Your task to perform on an android device: delete a single message in the gmail app Image 0: 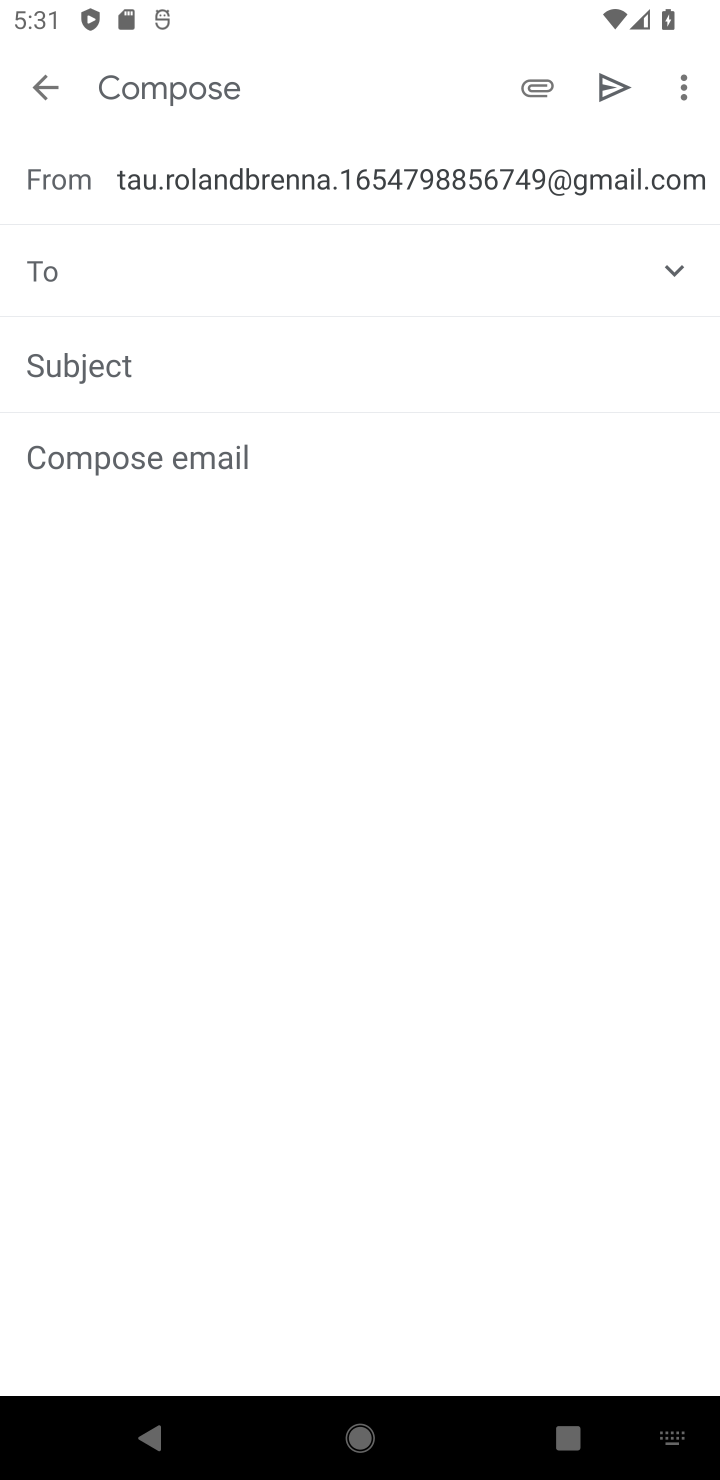
Step 0: click (52, 82)
Your task to perform on an android device: delete a single message in the gmail app Image 1: 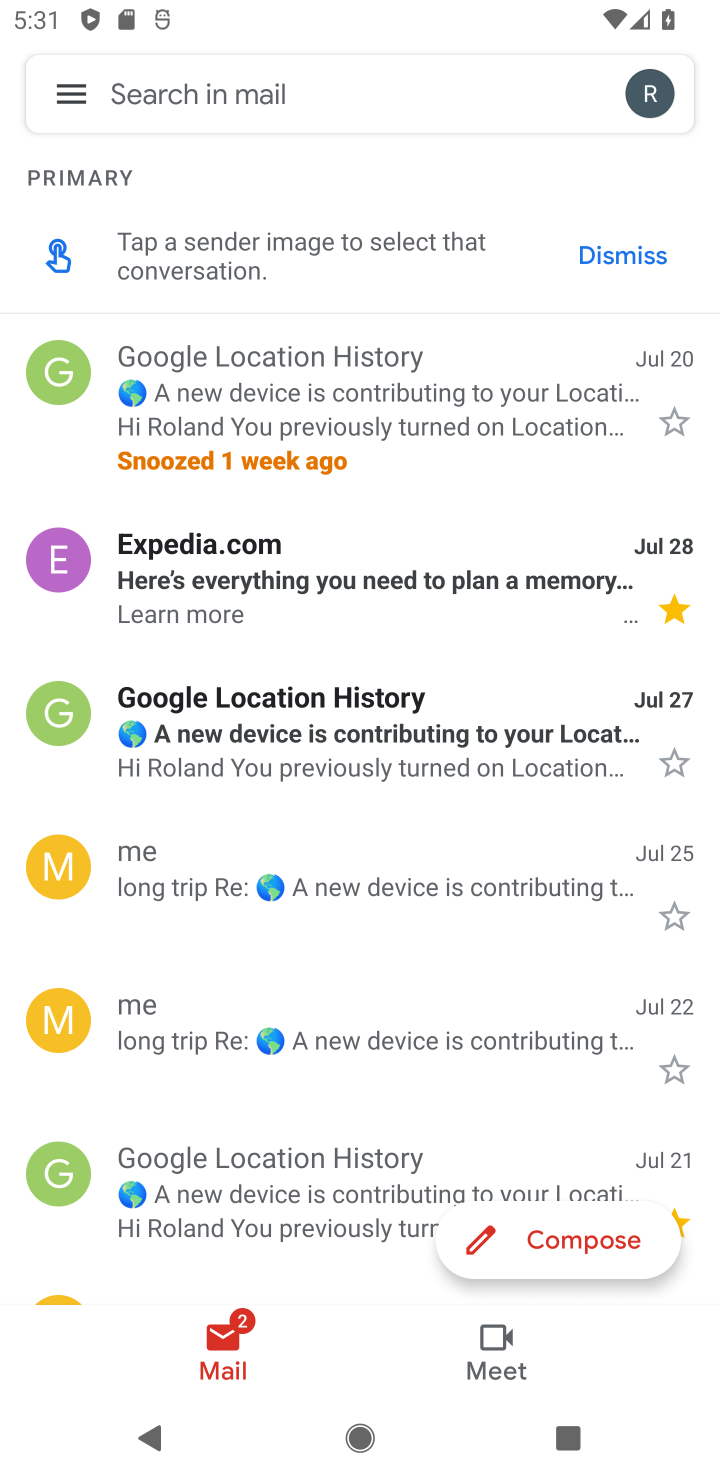
Step 1: click (281, 692)
Your task to perform on an android device: delete a single message in the gmail app Image 2: 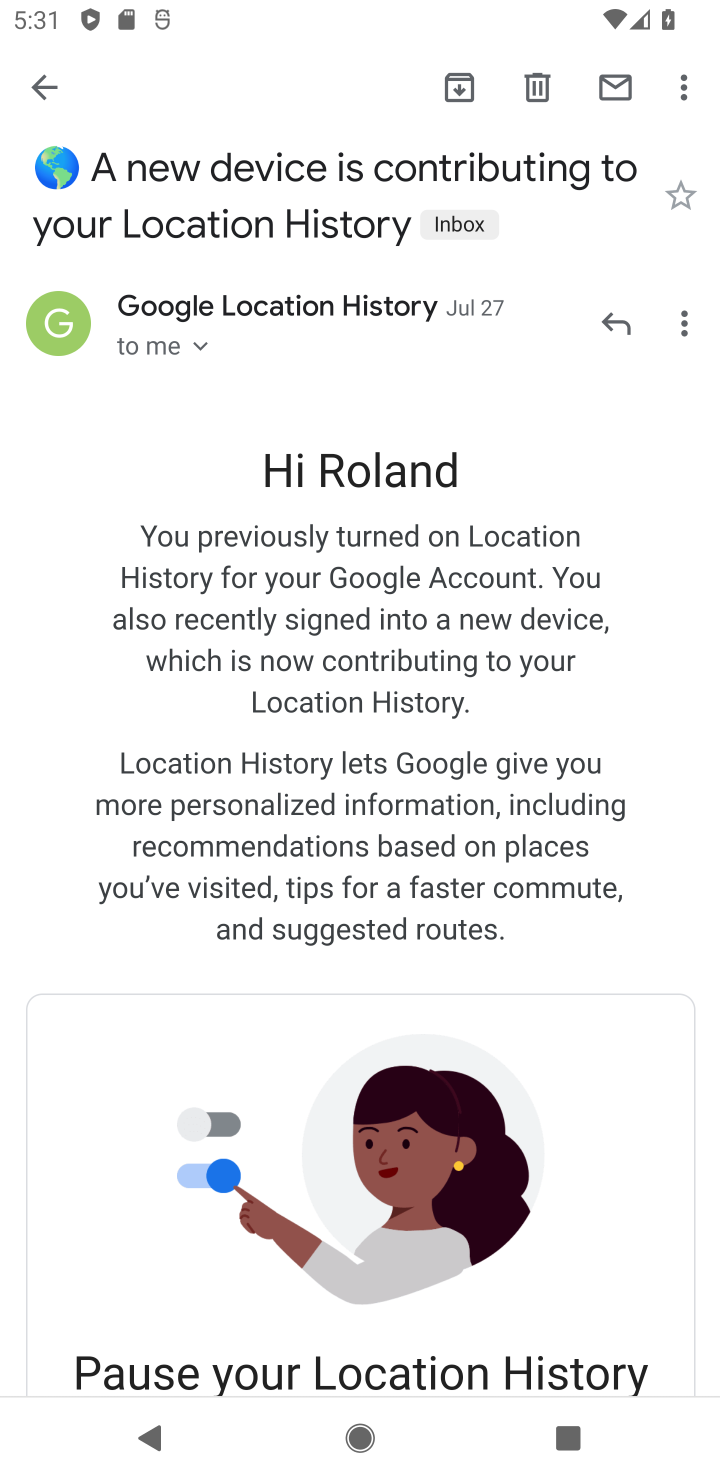
Step 2: click (526, 85)
Your task to perform on an android device: delete a single message in the gmail app Image 3: 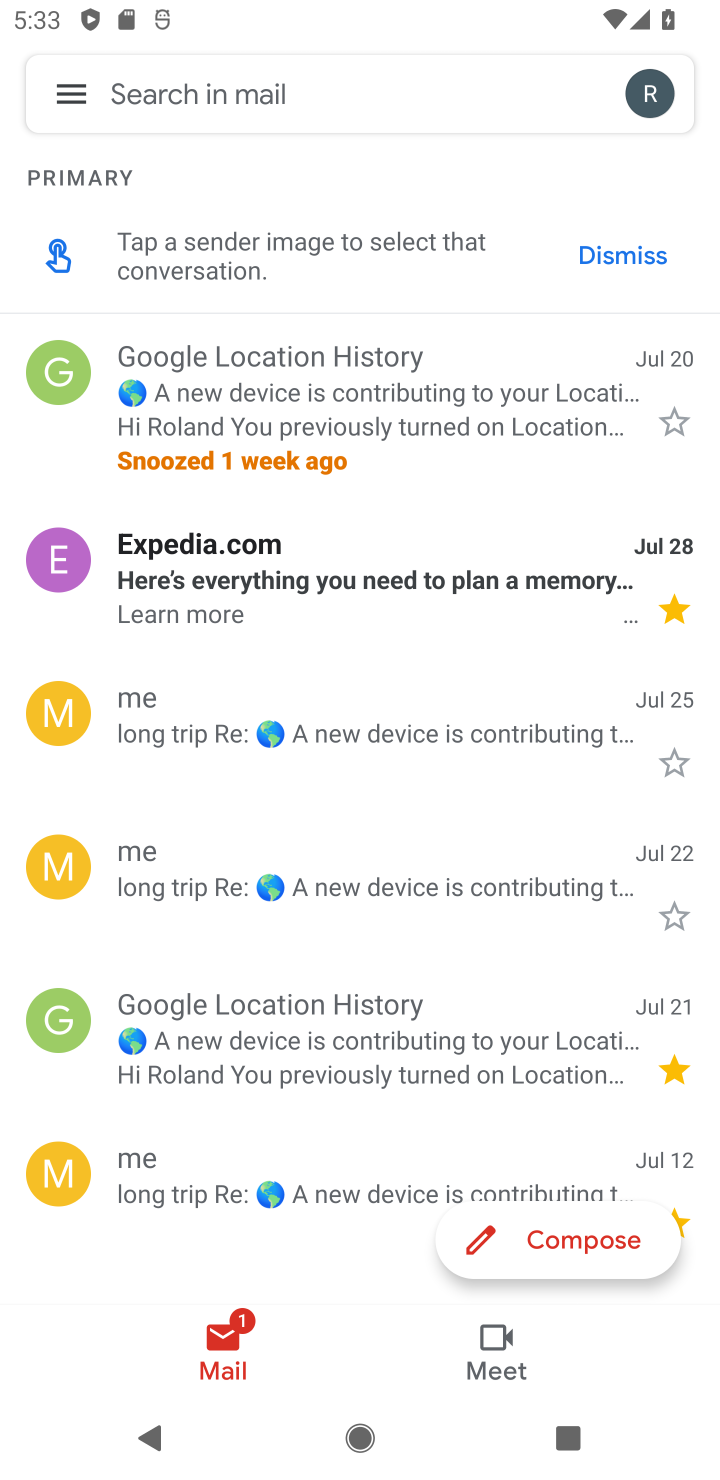
Step 3: task complete